Your task to perform on an android device: turn notification dots on Image 0: 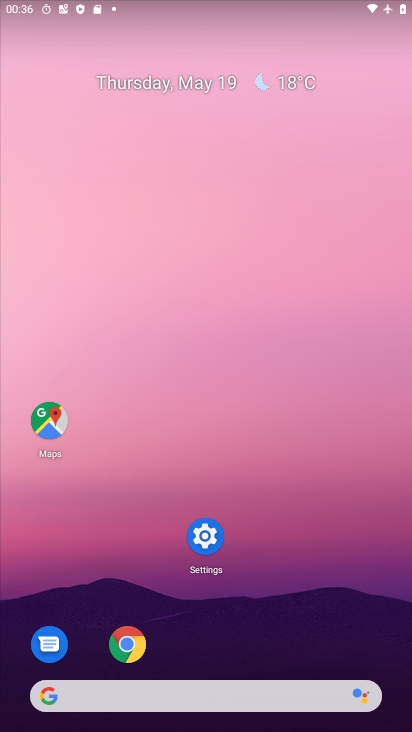
Step 0: drag from (353, 596) to (321, 155)
Your task to perform on an android device: turn notification dots on Image 1: 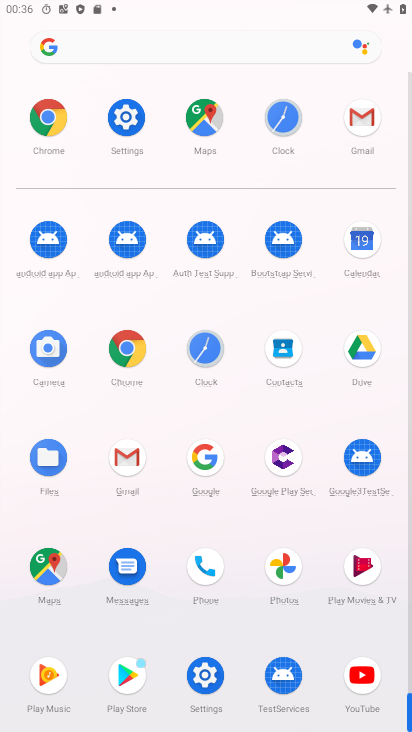
Step 1: click (137, 125)
Your task to perform on an android device: turn notification dots on Image 2: 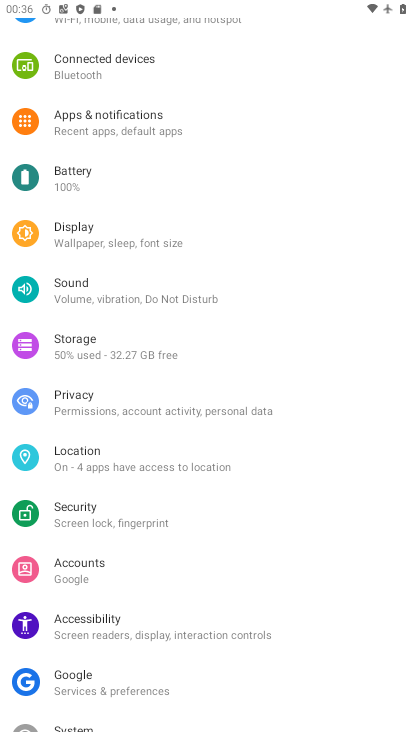
Step 2: drag from (177, 567) to (214, 614)
Your task to perform on an android device: turn notification dots on Image 3: 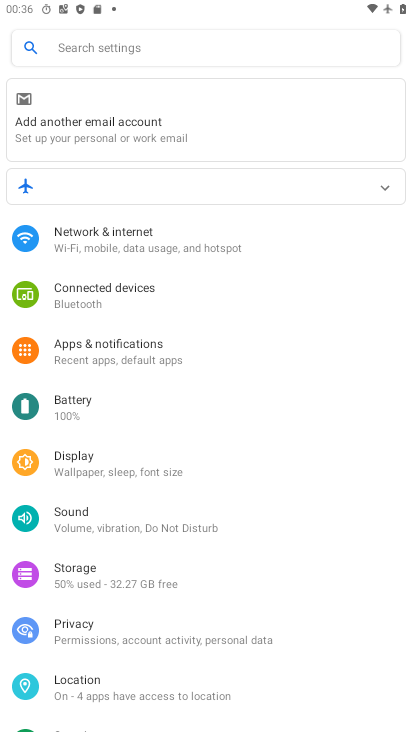
Step 3: click (127, 341)
Your task to perform on an android device: turn notification dots on Image 4: 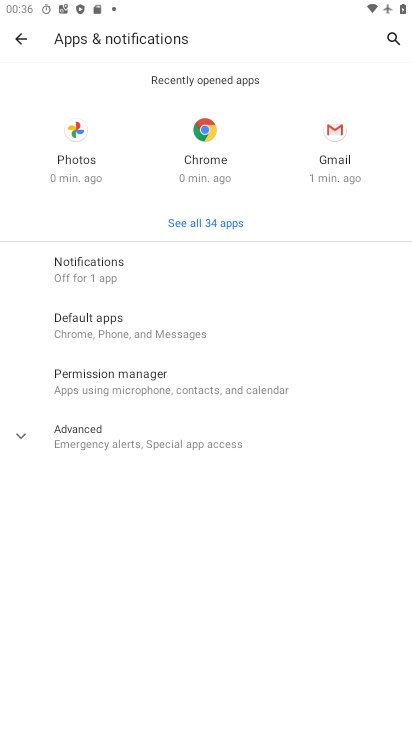
Step 4: click (97, 265)
Your task to perform on an android device: turn notification dots on Image 5: 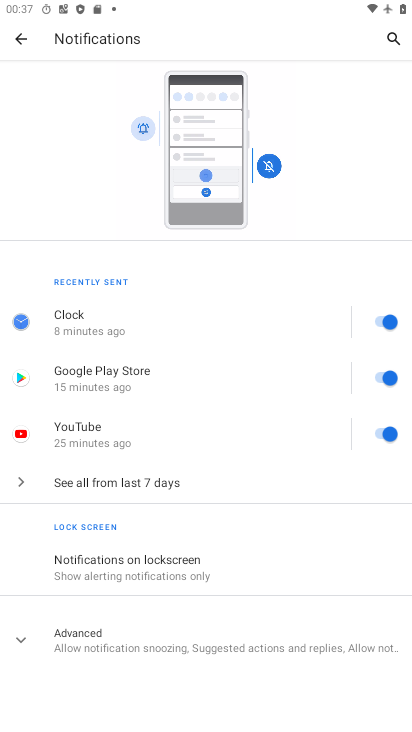
Step 5: click (161, 651)
Your task to perform on an android device: turn notification dots on Image 6: 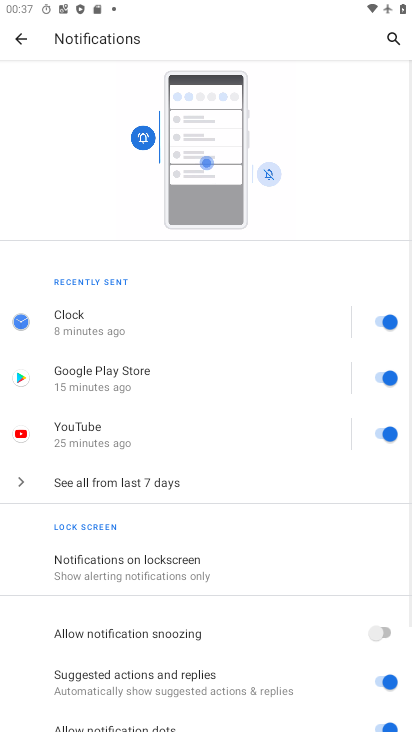
Step 6: task complete